Your task to perform on an android device: Go to accessibility settings Image 0: 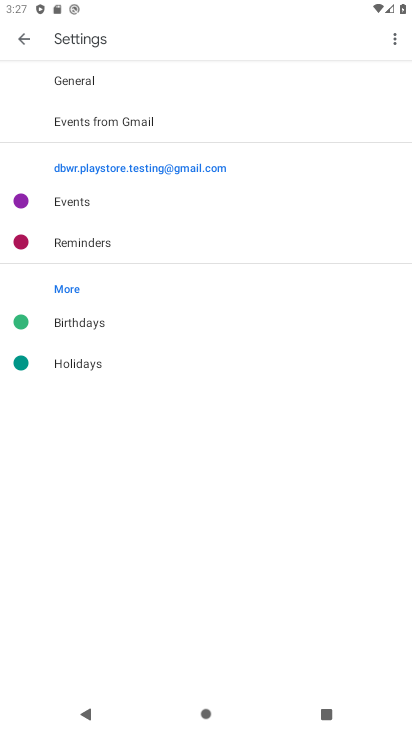
Step 0: press home button
Your task to perform on an android device: Go to accessibility settings Image 1: 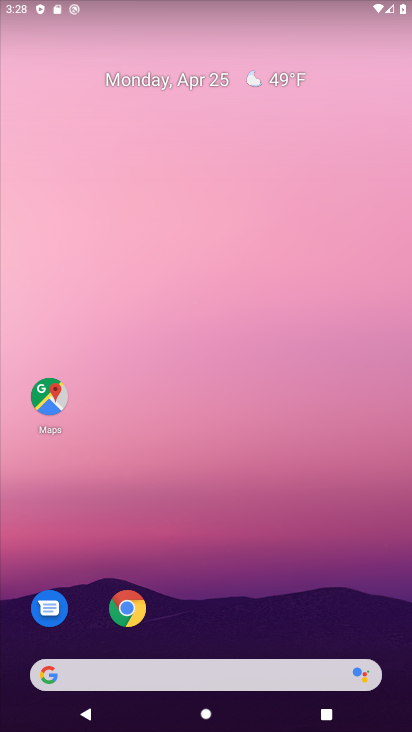
Step 1: drag from (376, 371) to (409, 103)
Your task to perform on an android device: Go to accessibility settings Image 2: 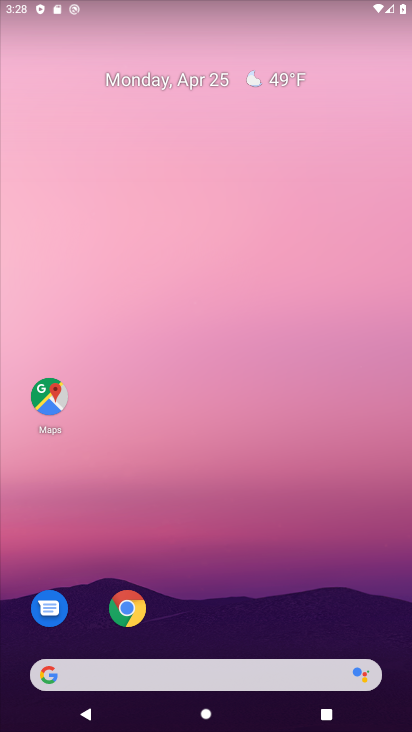
Step 2: drag from (353, 8) to (316, 10)
Your task to perform on an android device: Go to accessibility settings Image 3: 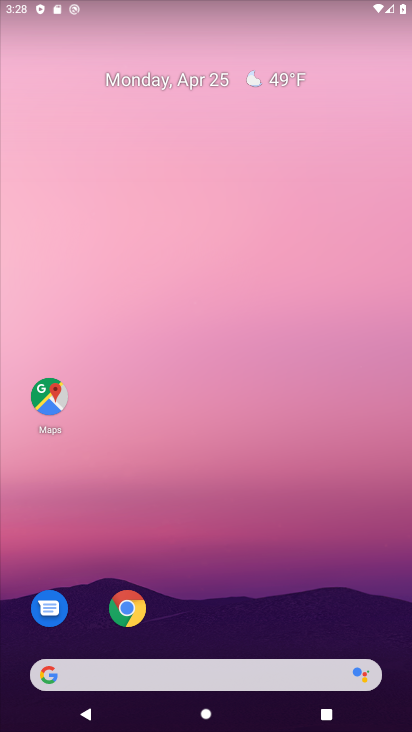
Step 3: drag from (227, 611) to (286, 200)
Your task to perform on an android device: Go to accessibility settings Image 4: 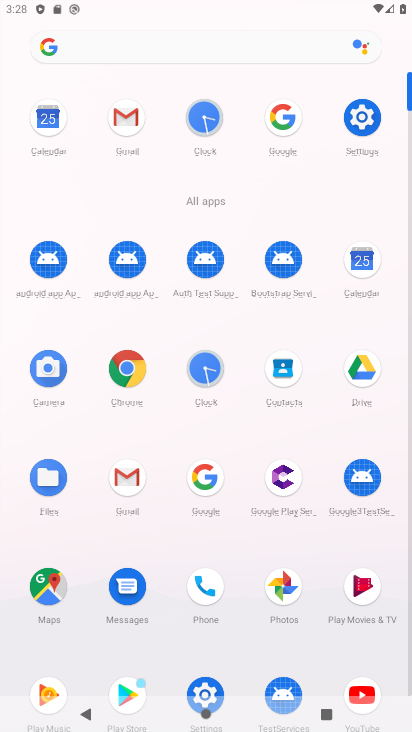
Step 4: click (364, 142)
Your task to perform on an android device: Go to accessibility settings Image 5: 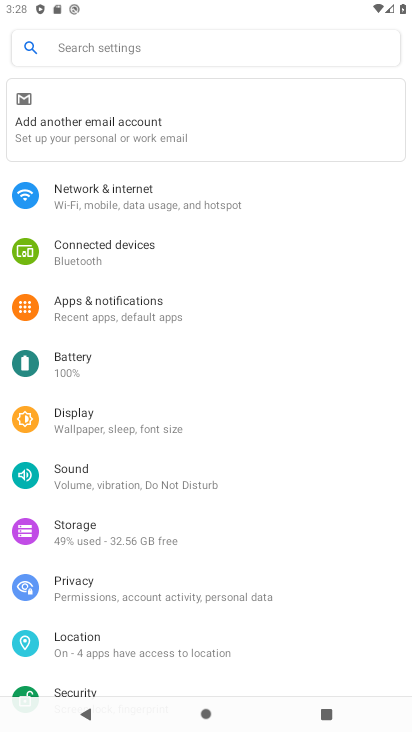
Step 5: drag from (206, 322) to (217, 283)
Your task to perform on an android device: Go to accessibility settings Image 6: 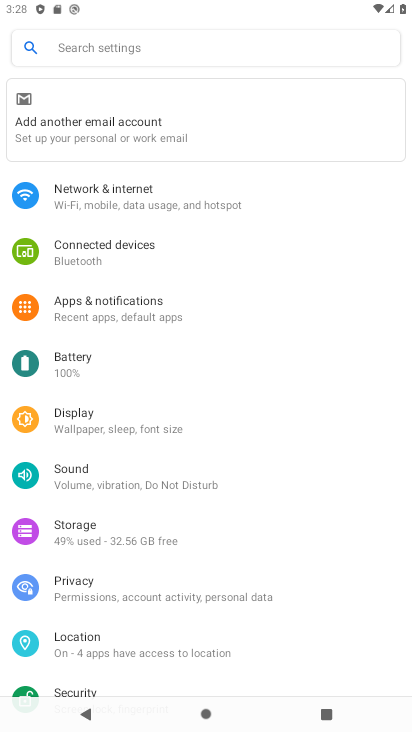
Step 6: click (194, 318)
Your task to perform on an android device: Go to accessibility settings Image 7: 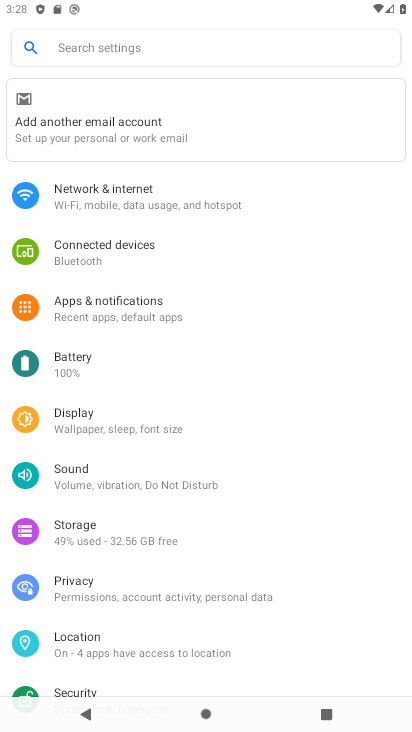
Step 7: drag from (167, 584) to (211, 218)
Your task to perform on an android device: Go to accessibility settings Image 8: 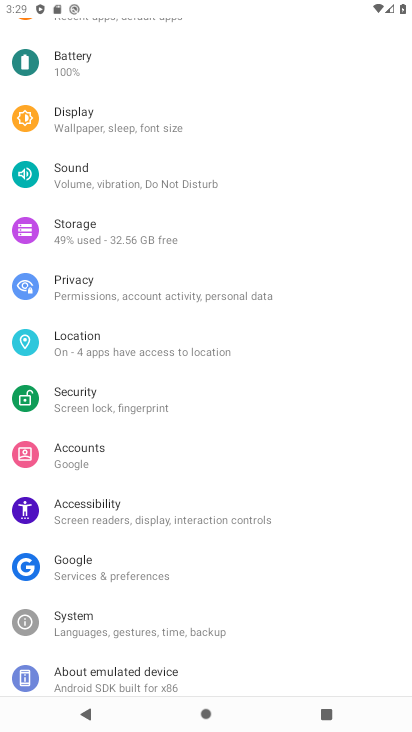
Step 8: click (155, 508)
Your task to perform on an android device: Go to accessibility settings Image 9: 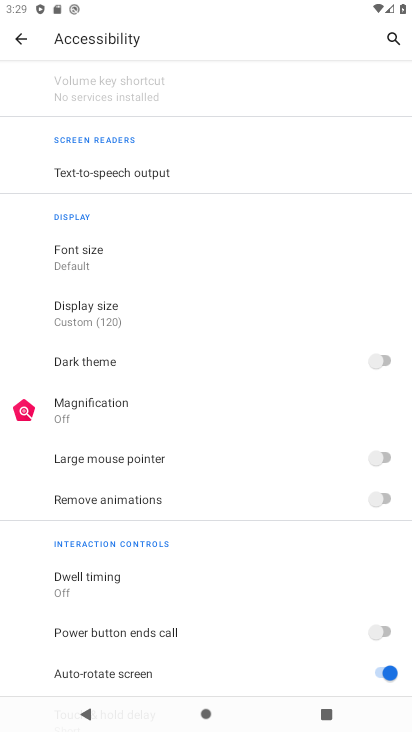
Step 9: task complete